Your task to perform on an android device: open app "Venmo" (install if not already installed) and enter user name: "bleedings@gmail.com" and password: "copied" Image 0: 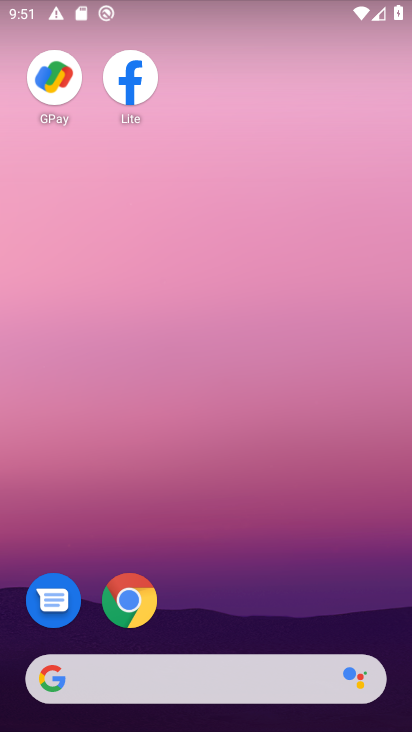
Step 0: drag from (223, 584) to (232, 109)
Your task to perform on an android device: open app "Venmo" (install if not already installed) and enter user name: "bleedings@gmail.com" and password: "copied" Image 1: 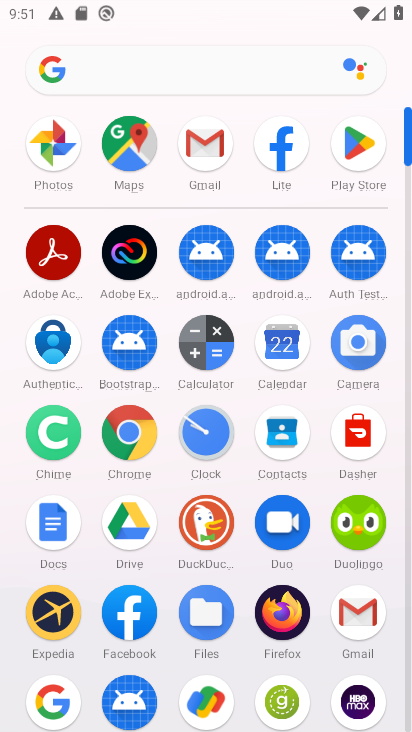
Step 1: click (352, 148)
Your task to perform on an android device: open app "Venmo" (install if not already installed) and enter user name: "bleedings@gmail.com" and password: "copied" Image 2: 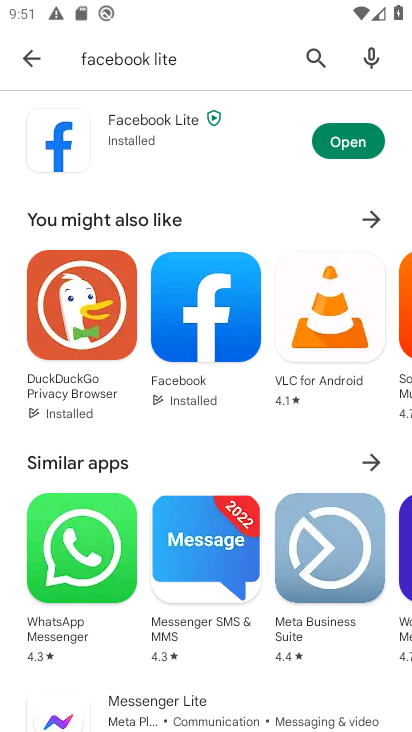
Step 2: click (309, 55)
Your task to perform on an android device: open app "Venmo" (install if not already installed) and enter user name: "bleedings@gmail.com" and password: "copied" Image 3: 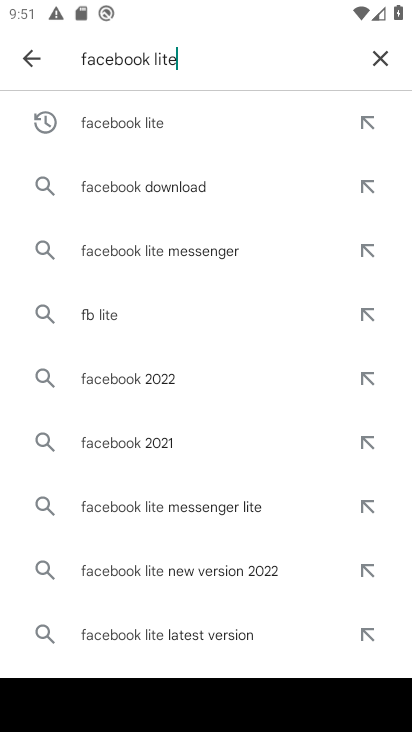
Step 3: click (373, 60)
Your task to perform on an android device: open app "Venmo" (install if not already installed) and enter user name: "bleedings@gmail.com" and password: "copied" Image 4: 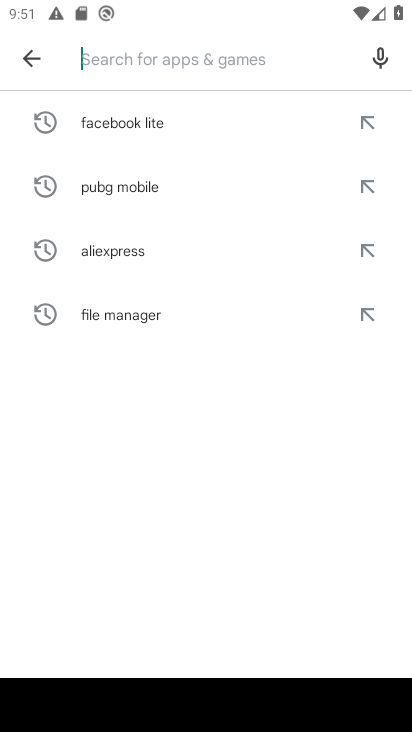
Step 4: type "Venmo"
Your task to perform on an android device: open app "Venmo" (install if not already installed) and enter user name: "bleedings@gmail.com" and password: "copied" Image 5: 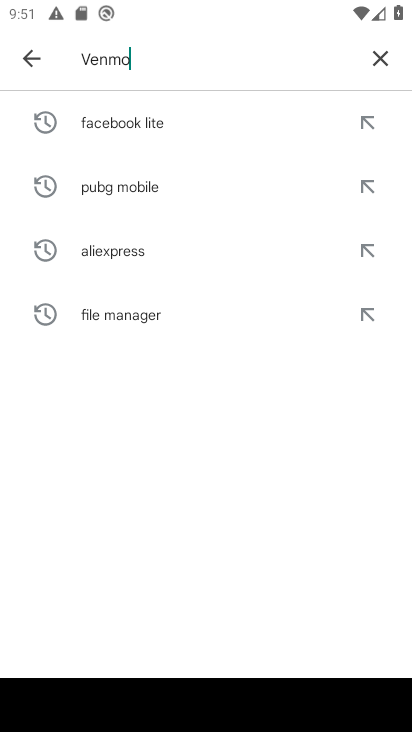
Step 5: type ""
Your task to perform on an android device: open app "Venmo" (install if not already installed) and enter user name: "bleedings@gmail.com" and password: "copied" Image 6: 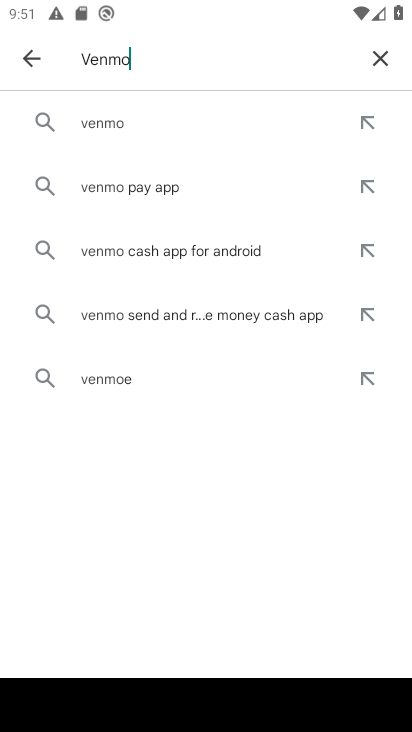
Step 6: click (121, 115)
Your task to perform on an android device: open app "Venmo" (install if not already installed) and enter user name: "bleedings@gmail.com" and password: "copied" Image 7: 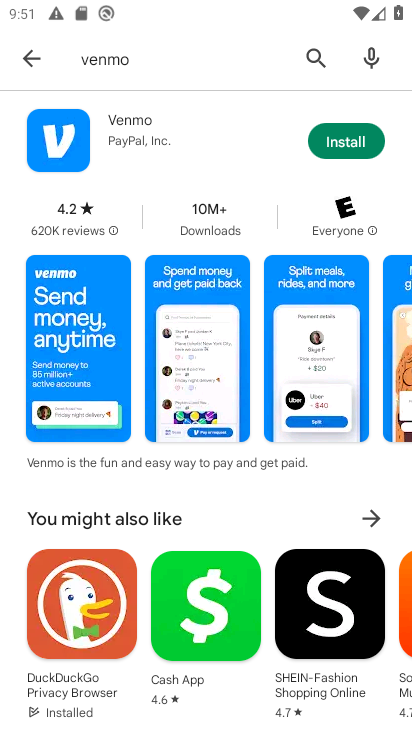
Step 7: click (326, 145)
Your task to perform on an android device: open app "Venmo" (install if not already installed) and enter user name: "bleedings@gmail.com" and password: "copied" Image 8: 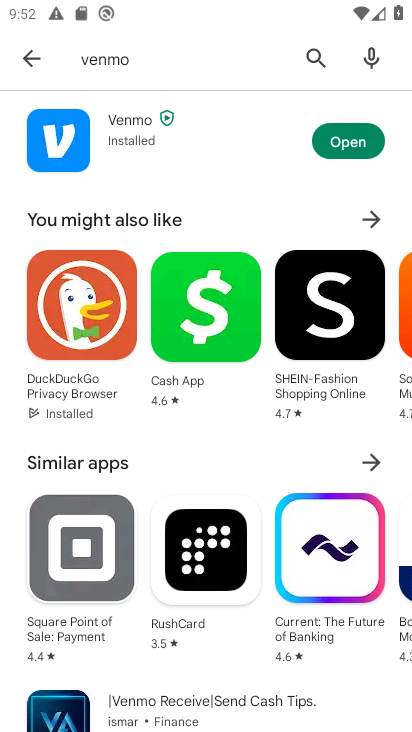
Step 8: click (351, 146)
Your task to perform on an android device: open app "Venmo" (install if not already installed) and enter user name: "bleedings@gmail.com" and password: "copied" Image 9: 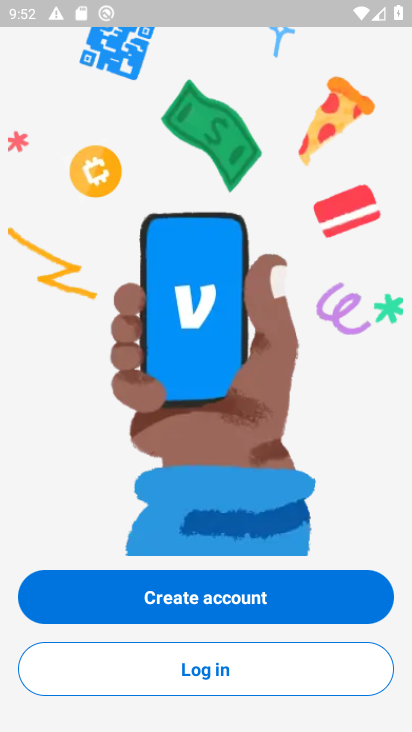
Step 9: task complete